Your task to perform on an android device: check out phone information Image 0: 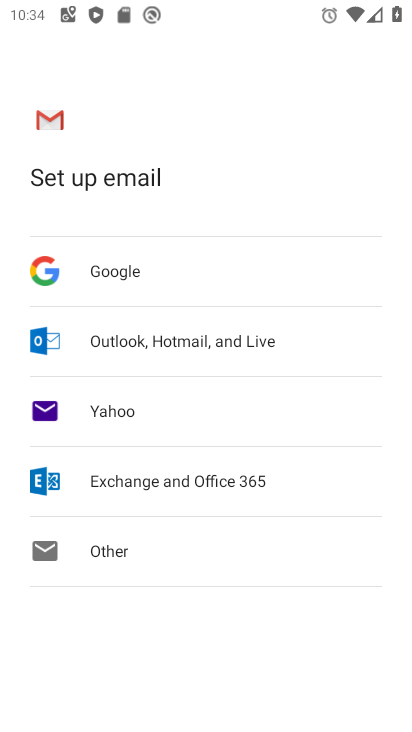
Step 0: press home button
Your task to perform on an android device: check out phone information Image 1: 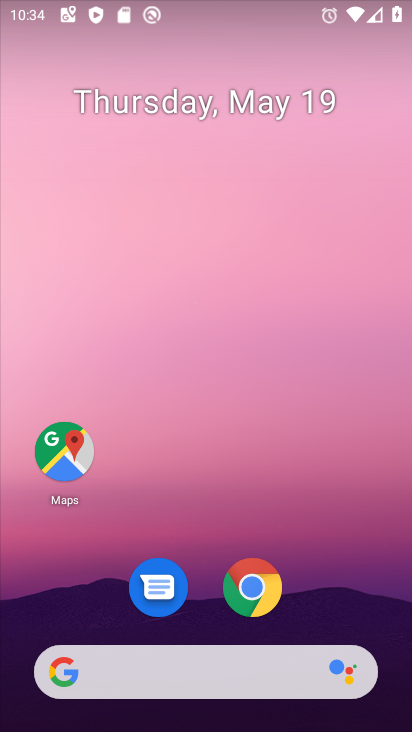
Step 1: drag from (358, 541) to (341, 72)
Your task to perform on an android device: check out phone information Image 2: 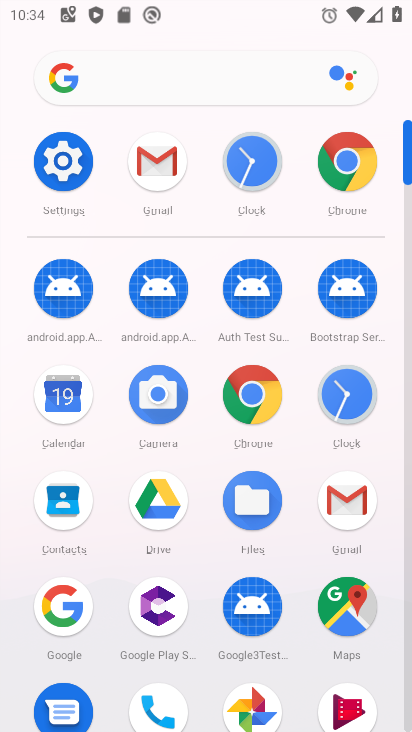
Step 2: click (173, 709)
Your task to perform on an android device: check out phone information Image 3: 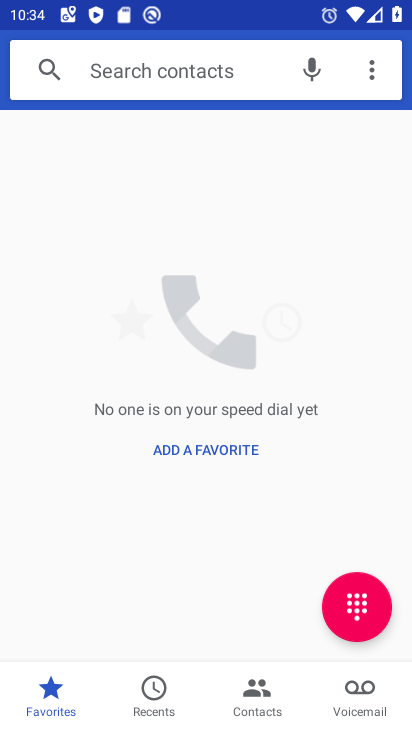
Step 3: click (377, 71)
Your task to perform on an android device: check out phone information Image 4: 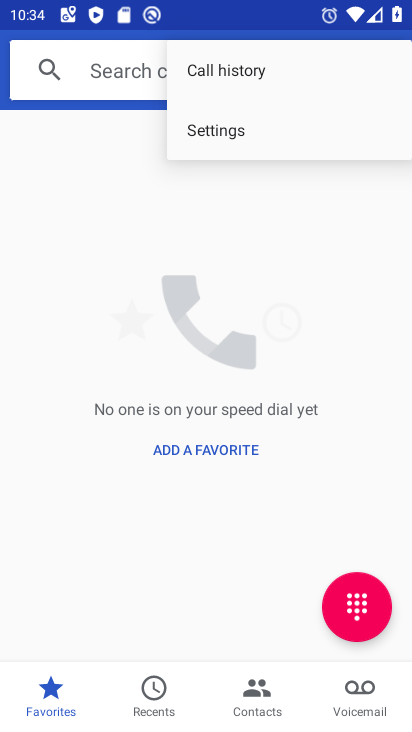
Step 4: click (273, 140)
Your task to perform on an android device: check out phone information Image 5: 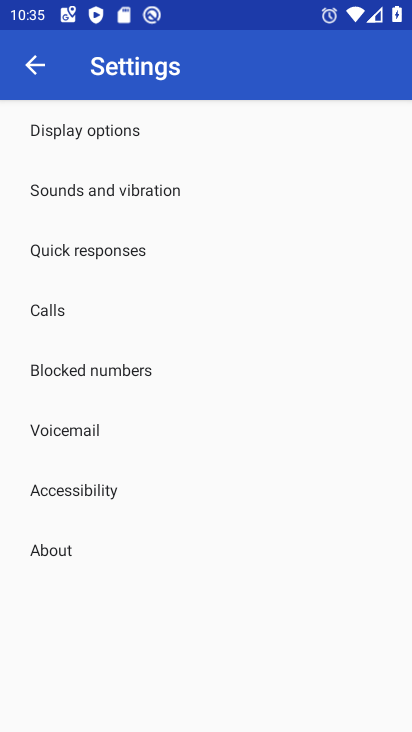
Step 5: task complete